Your task to perform on an android device: Open the calendar app, open the side menu, and click the "Day" option Image 0: 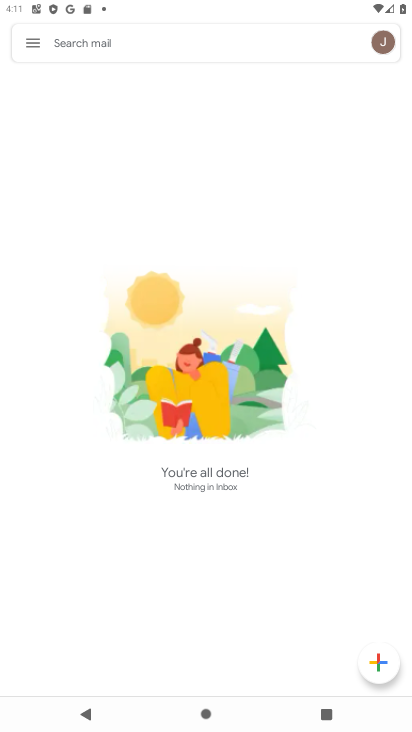
Step 0: press home button
Your task to perform on an android device: Open the calendar app, open the side menu, and click the "Day" option Image 1: 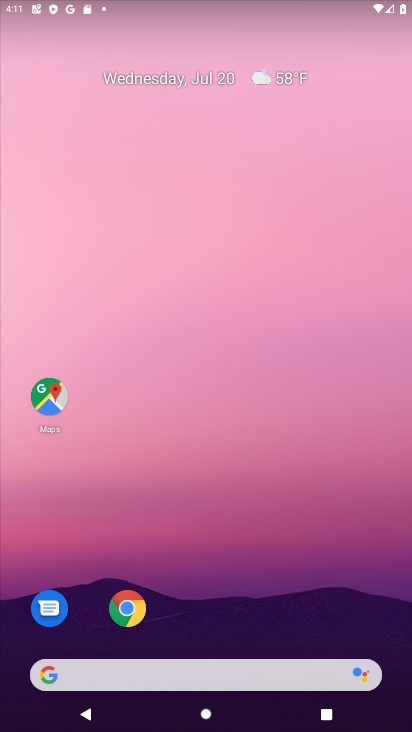
Step 1: drag from (239, 570) to (282, 139)
Your task to perform on an android device: Open the calendar app, open the side menu, and click the "Day" option Image 2: 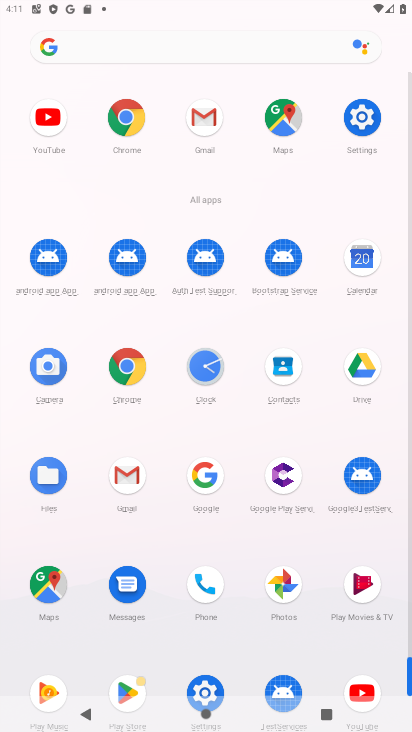
Step 2: click (369, 268)
Your task to perform on an android device: Open the calendar app, open the side menu, and click the "Day" option Image 3: 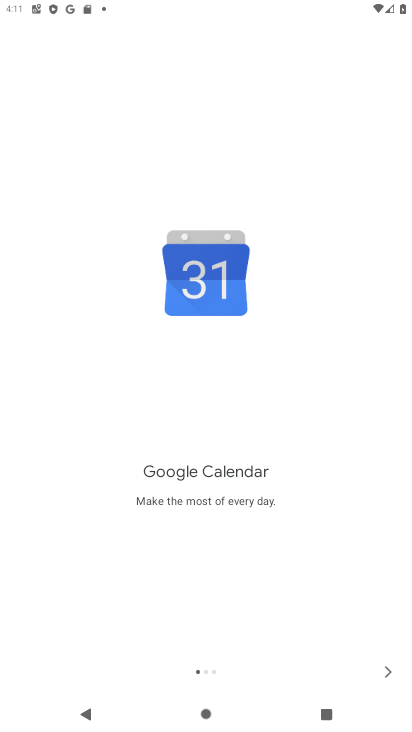
Step 3: click (383, 665)
Your task to perform on an android device: Open the calendar app, open the side menu, and click the "Day" option Image 4: 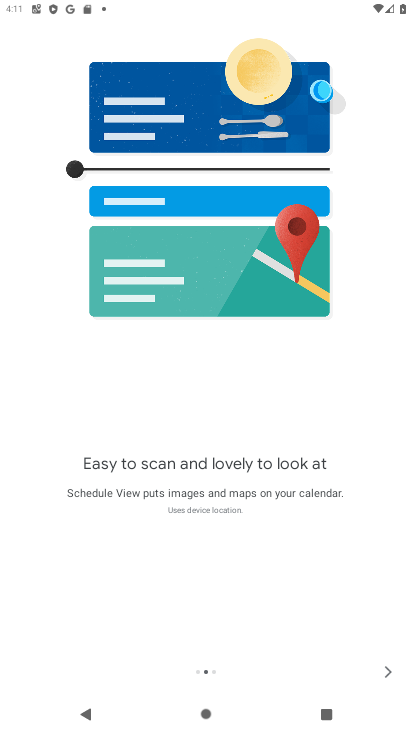
Step 4: click (379, 671)
Your task to perform on an android device: Open the calendar app, open the side menu, and click the "Day" option Image 5: 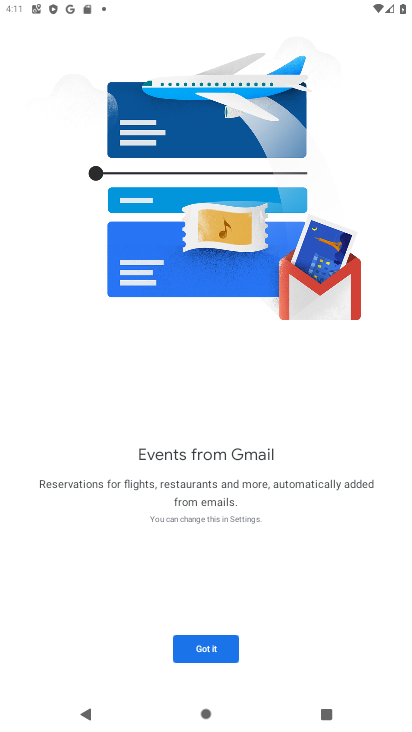
Step 5: click (202, 647)
Your task to perform on an android device: Open the calendar app, open the side menu, and click the "Day" option Image 6: 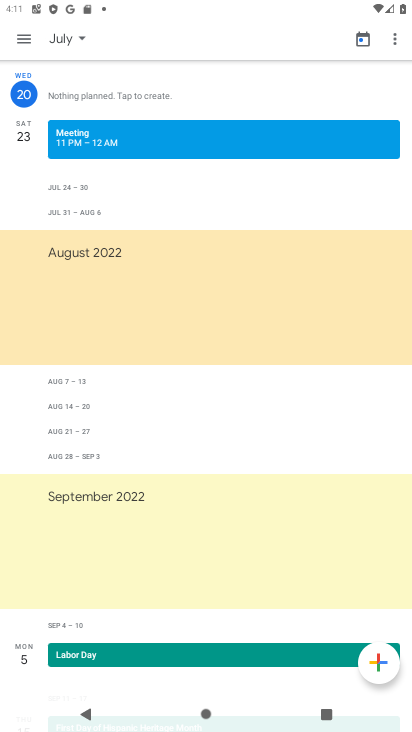
Step 6: click (32, 43)
Your task to perform on an android device: Open the calendar app, open the side menu, and click the "Day" option Image 7: 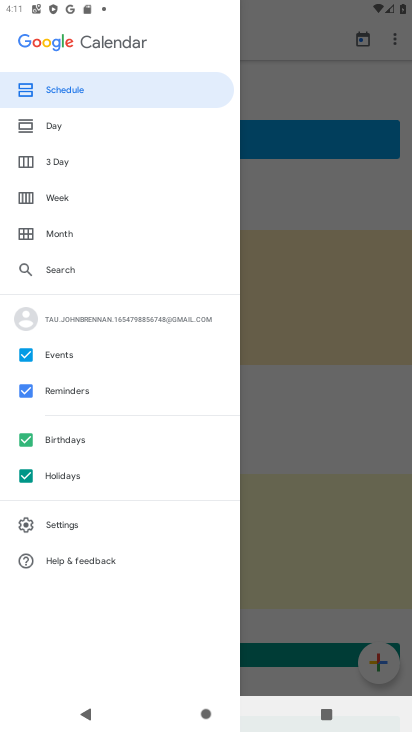
Step 7: click (63, 130)
Your task to perform on an android device: Open the calendar app, open the side menu, and click the "Day" option Image 8: 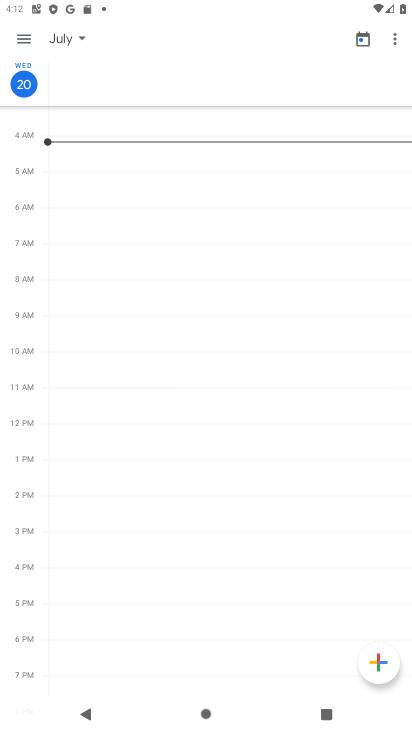
Step 8: task complete